Your task to perform on an android device: Open the calendar app, open the side menu, and click the "Day" option Image 0: 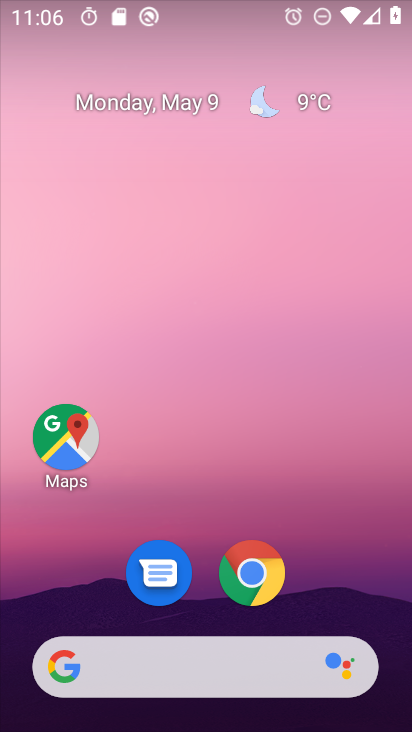
Step 0: drag from (334, 549) to (287, 94)
Your task to perform on an android device: Open the calendar app, open the side menu, and click the "Day" option Image 1: 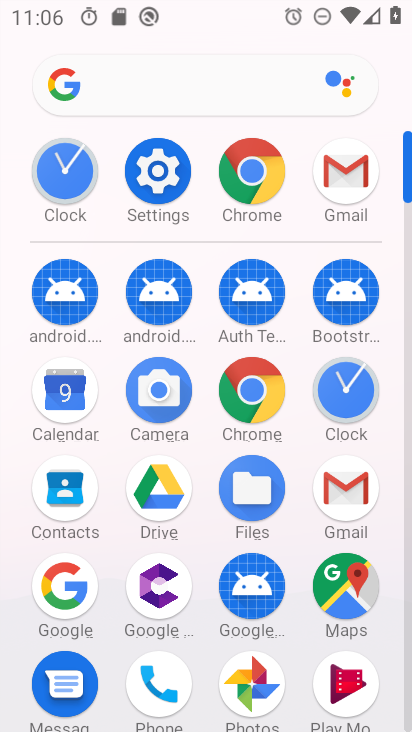
Step 1: click (49, 398)
Your task to perform on an android device: Open the calendar app, open the side menu, and click the "Day" option Image 2: 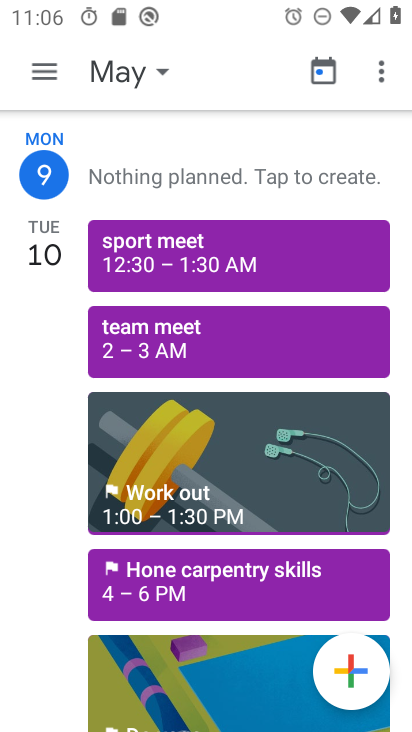
Step 2: click (44, 72)
Your task to perform on an android device: Open the calendar app, open the side menu, and click the "Day" option Image 3: 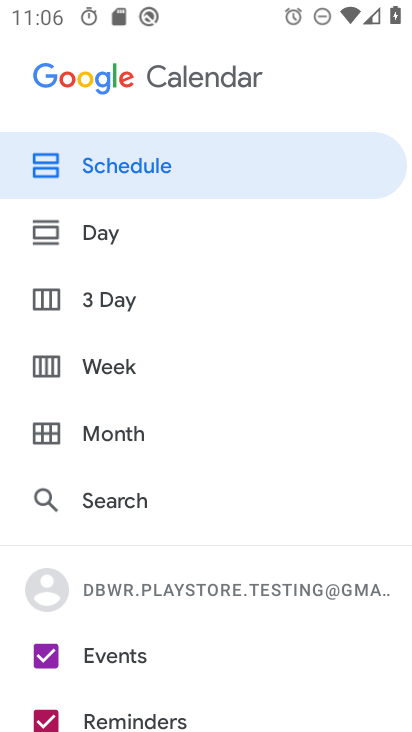
Step 3: click (86, 240)
Your task to perform on an android device: Open the calendar app, open the side menu, and click the "Day" option Image 4: 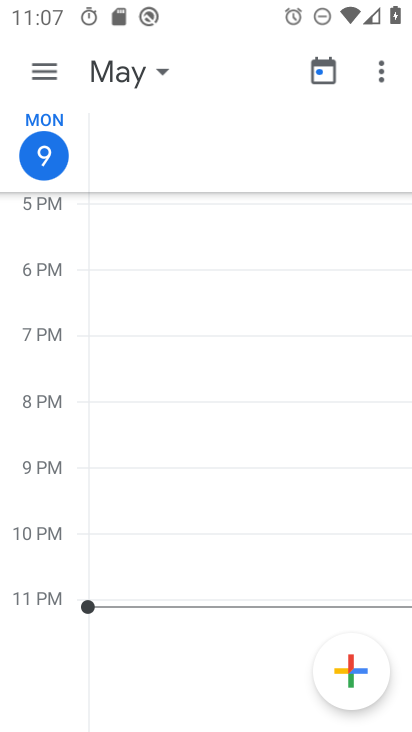
Step 4: task complete